Your task to perform on an android device: Open Google Maps and go to "Timeline" Image 0: 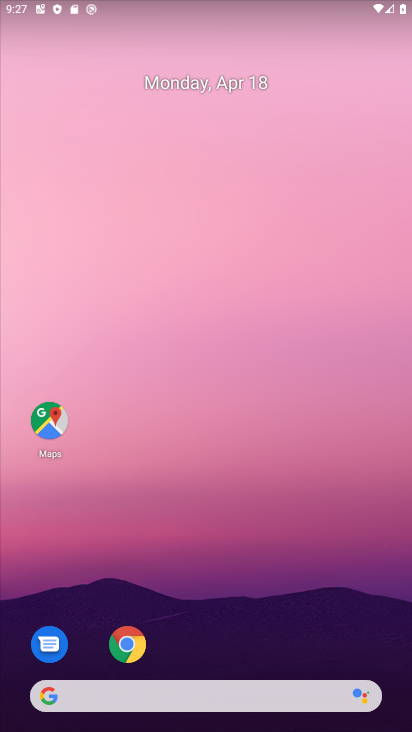
Step 0: click (50, 415)
Your task to perform on an android device: Open Google Maps and go to "Timeline" Image 1: 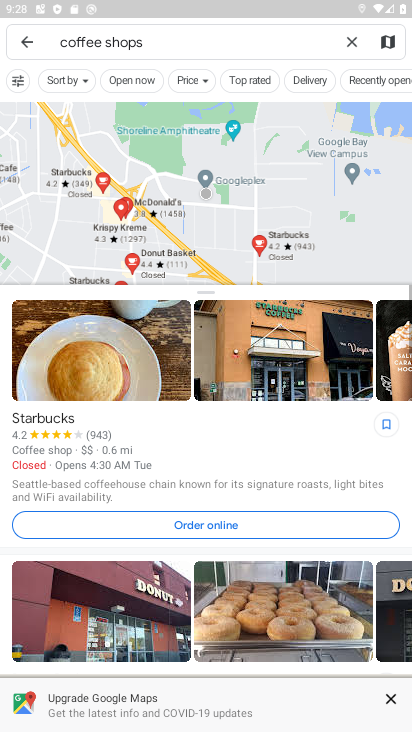
Step 1: click (31, 45)
Your task to perform on an android device: Open Google Maps and go to "Timeline" Image 2: 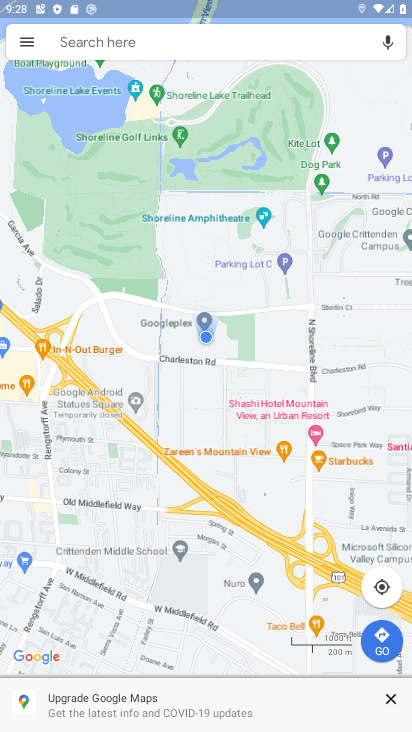
Step 2: click (22, 36)
Your task to perform on an android device: Open Google Maps and go to "Timeline" Image 3: 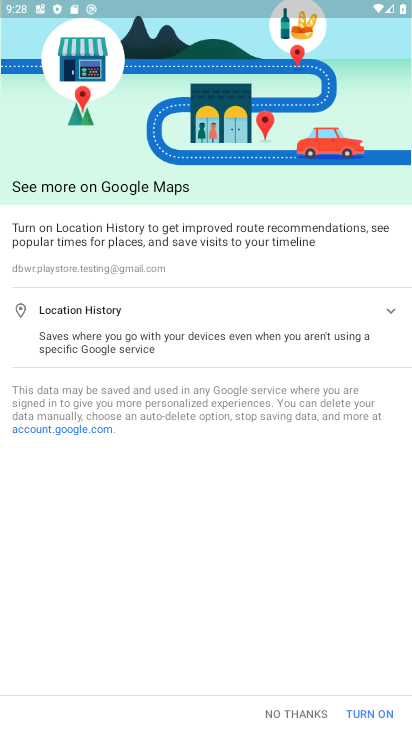
Step 3: click (296, 718)
Your task to perform on an android device: Open Google Maps and go to "Timeline" Image 4: 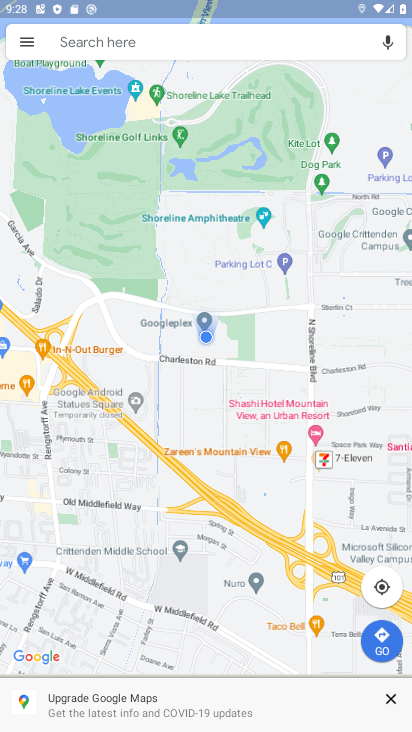
Step 4: click (26, 47)
Your task to perform on an android device: Open Google Maps and go to "Timeline" Image 5: 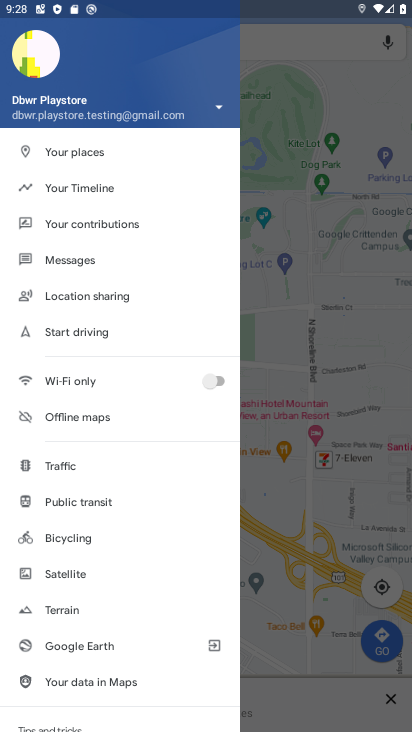
Step 5: click (90, 187)
Your task to perform on an android device: Open Google Maps and go to "Timeline" Image 6: 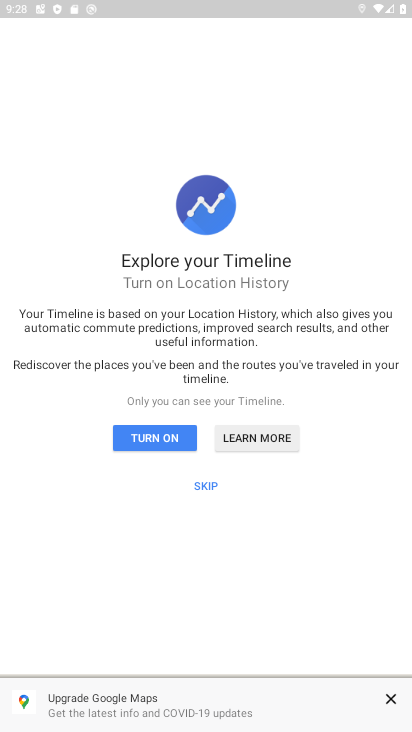
Step 6: click (193, 476)
Your task to perform on an android device: Open Google Maps and go to "Timeline" Image 7: 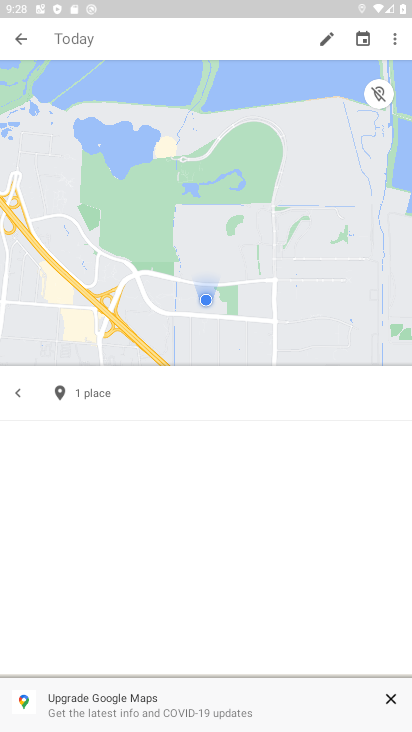
Step 7: click (389, 692)
Your task to perform on an android device: Open Google Maps and go to "Timeline" Image 8: 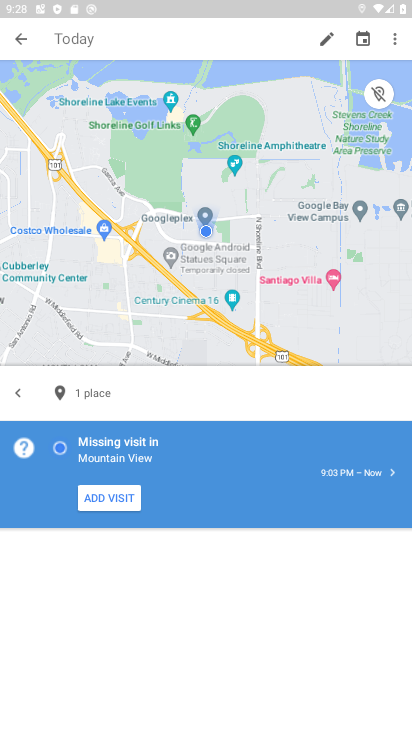
Step 8: task complete